Your task to perform on an android device: all mails in gmail Image 0: 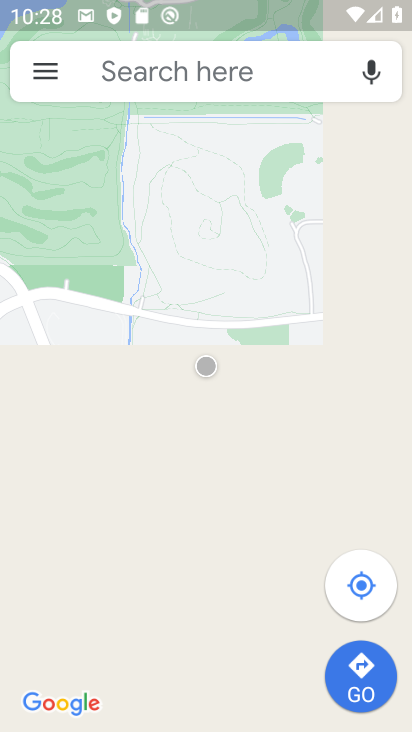
Step 0: press home button
Your task to perform on an android device: all mails in gmail Image 1: 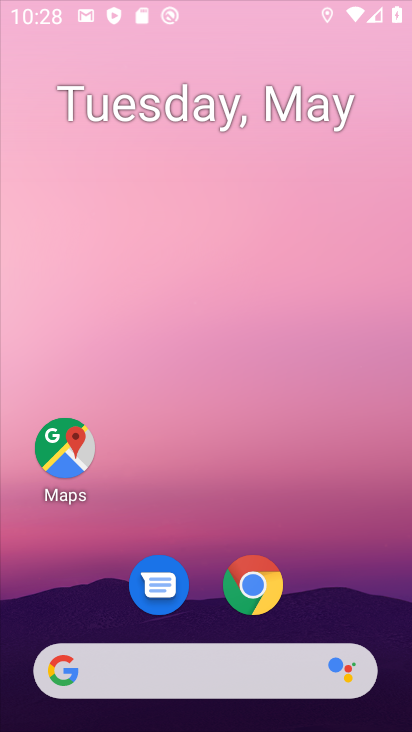
Step 1: click (262, 130)
Your task to perform on an android device: all mails in gmail Image 2: 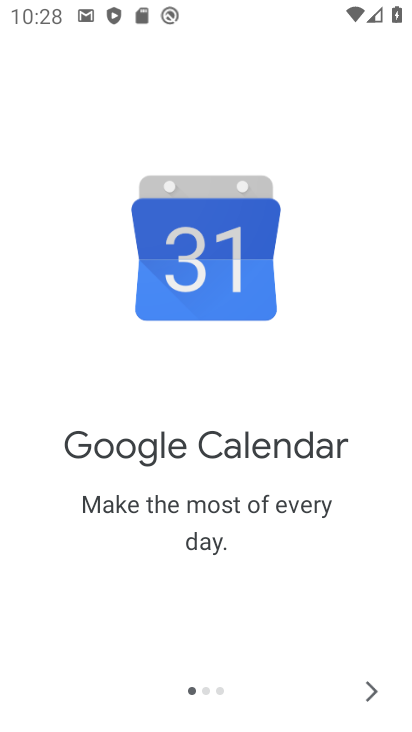
Step 2: press home button
Your task to perform on an android device: all mails in gmail Image 3: 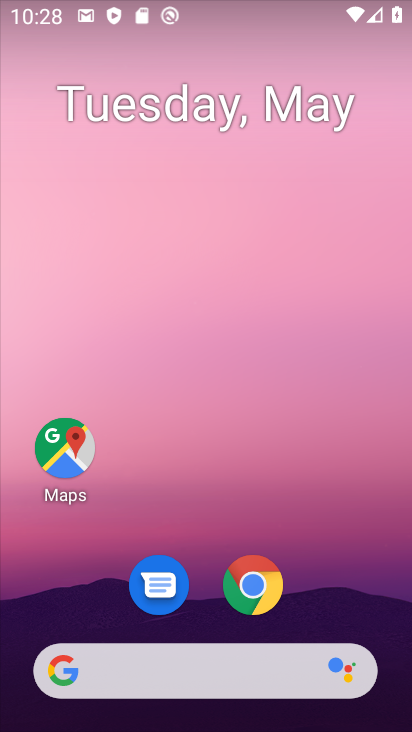
Step 3: drag from (200, 565) to (225, 180)
Your task to perform on an android device: all mails in gmail Image 4: 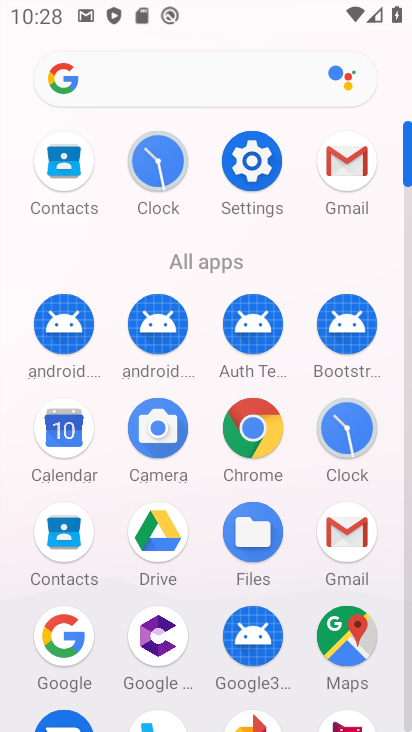
Step 4: click (351, 171)
Your task to perform on an android device: all mails in gmail Image 5: 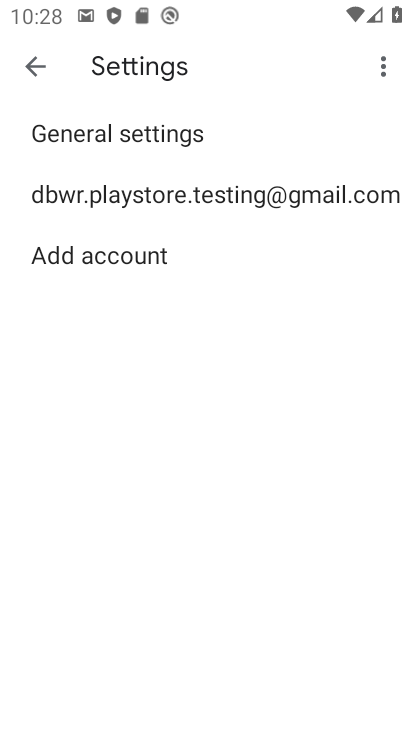
Step 5: click (38, 68)
Your task to perform on an android device: all mails in gmail Image 6: 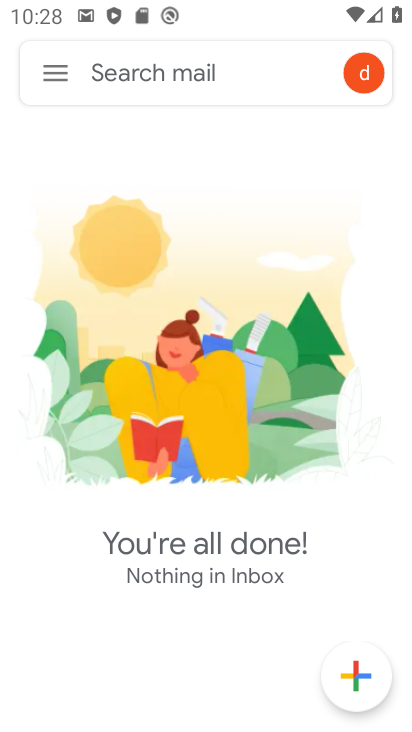
Step 6: click (44, 65)
Your task to perform on an android device: all mails in gmail Image 7: 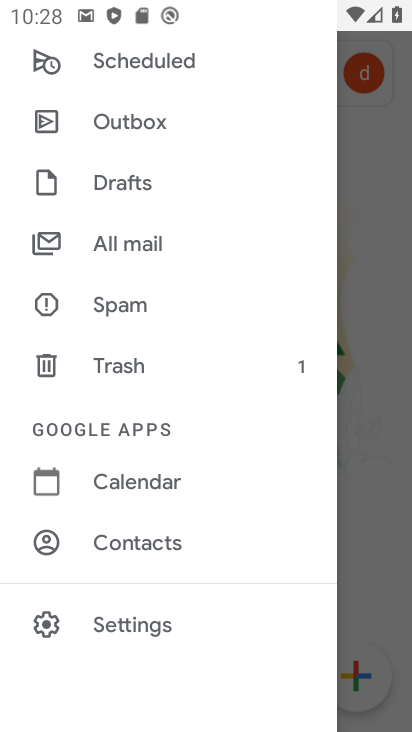
Step 7: click (141, 230)
Your task to perform on an android device: all mails in gmail Image 8: 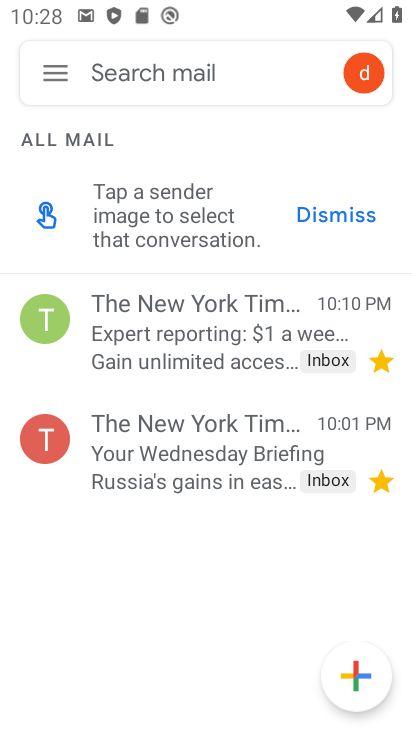
Step 8: task complete